Your task to perform on an android device: Search for a new desk on IKEA Image 0: 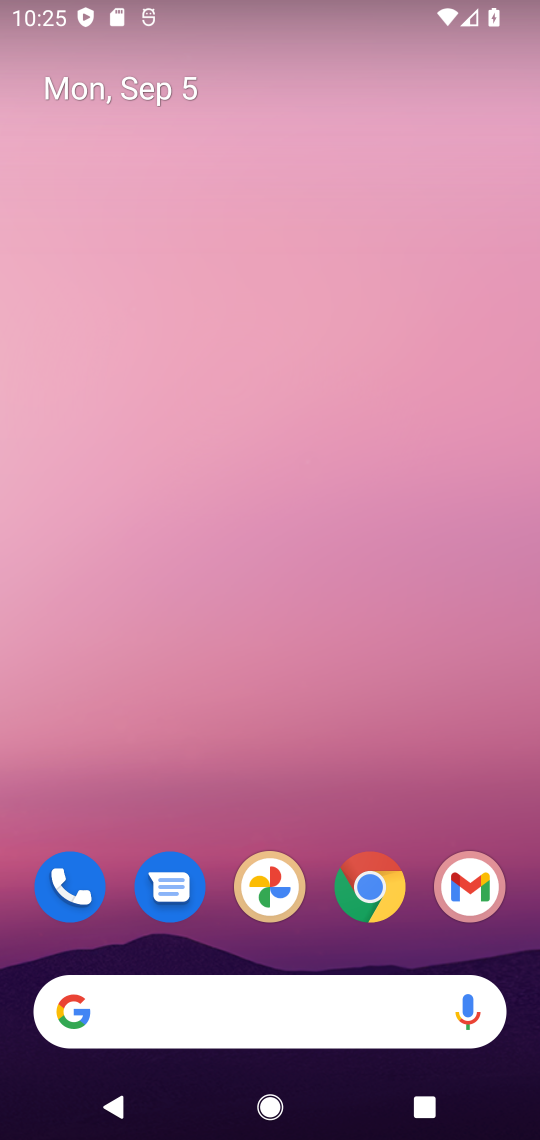
Step 0: click (387, 902)
Your task to perform on an android device: Search for a new desk on IKEA Image 1: 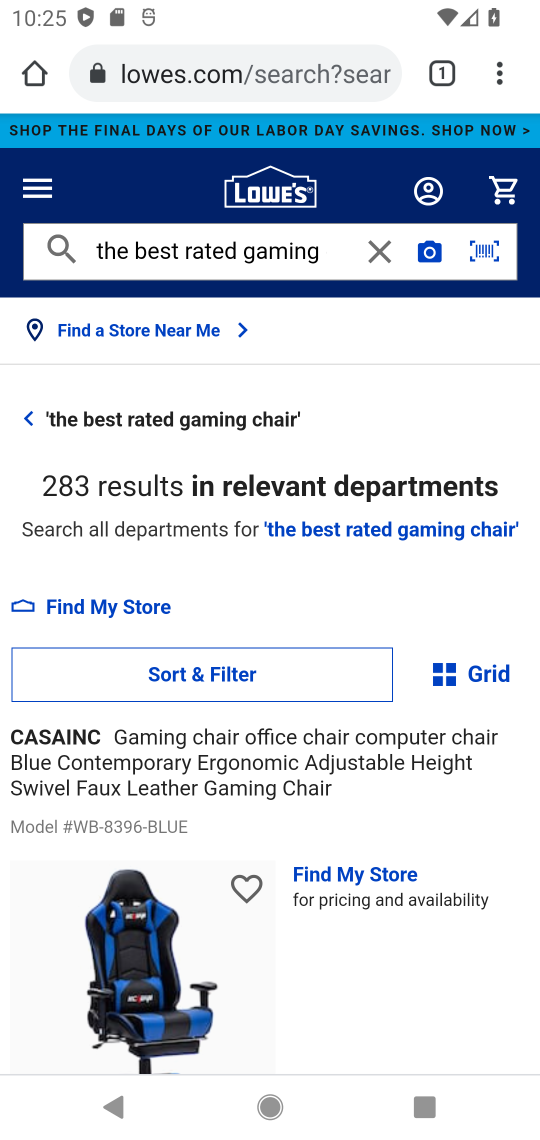
Step 1: click (281, 72)
Your task to perform on an android device: Search for a new desk on IKEA Image 2: 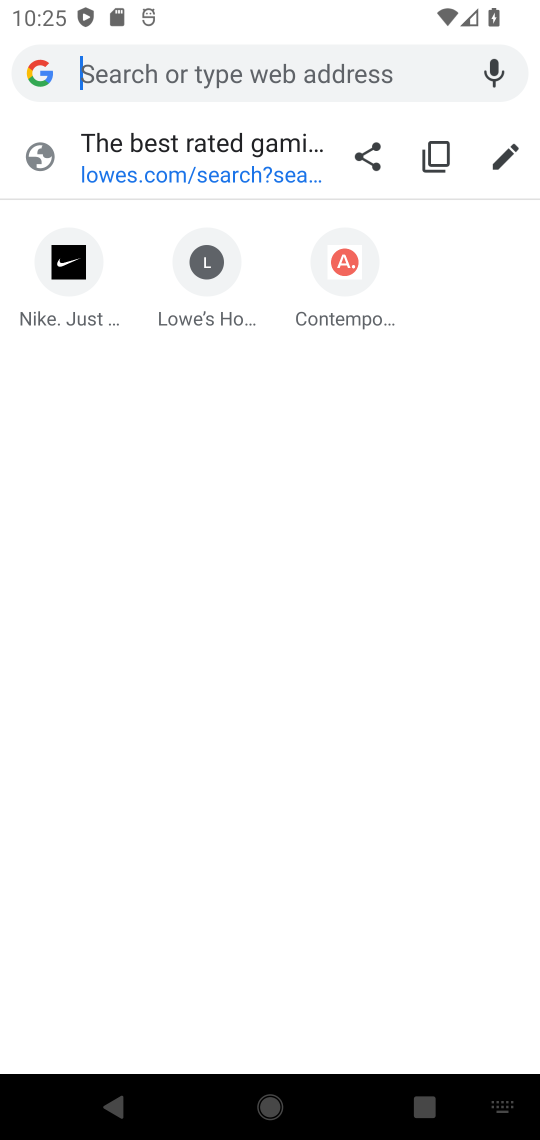
Step 2: type "Ikea"
Your task to perform on an android device: Search for a new desk on IKEA Image 3: 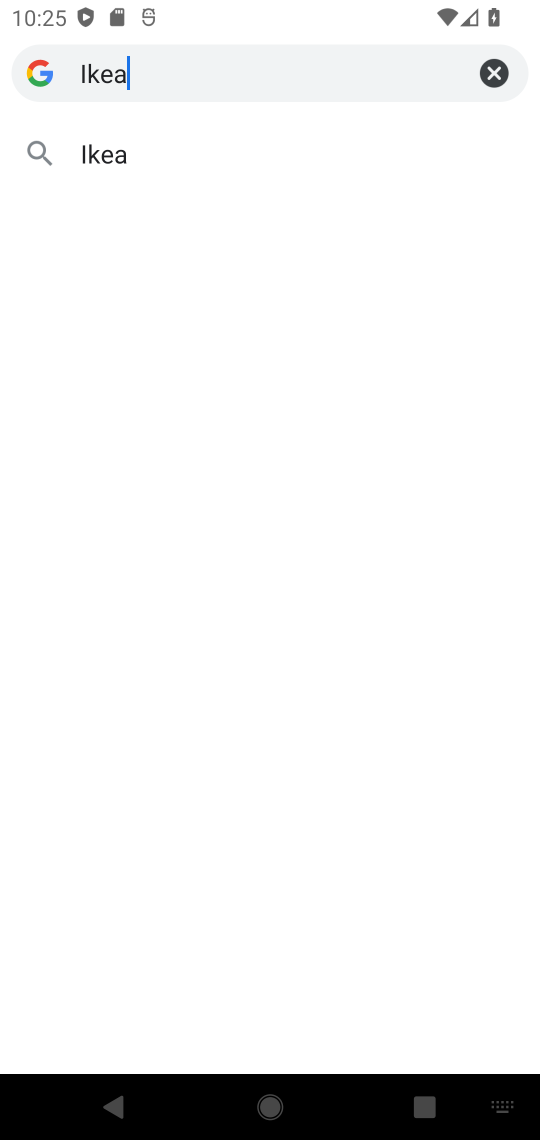
Step 3: click (121, 159)
Your task to perform on an android device: Search for a new desk on IKEA Image 4: 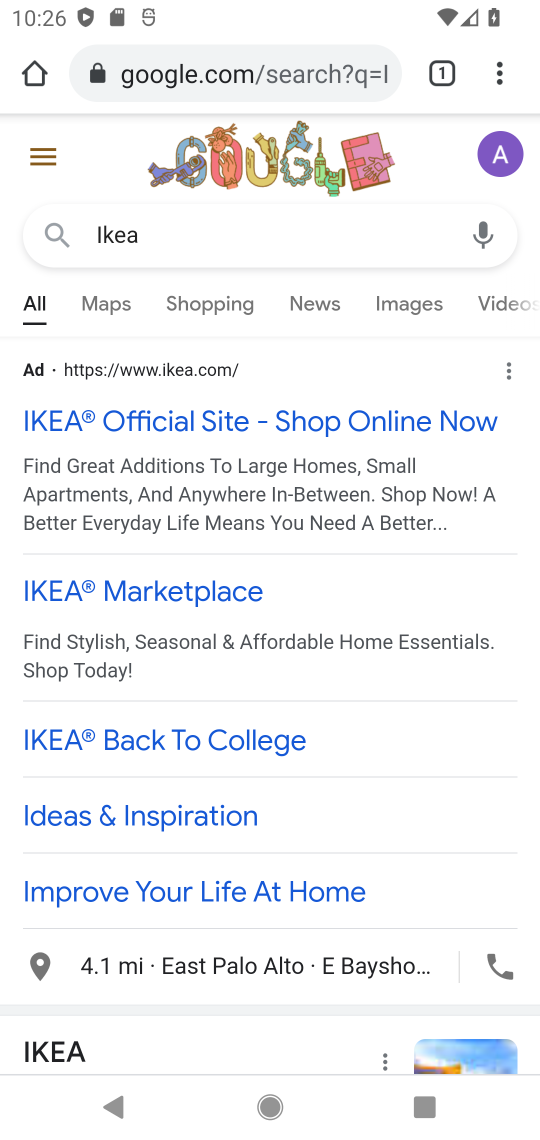
Step 4: click (266, 417)
Your task to perform on an android device: Search for a new desk on IKEA Image 5: 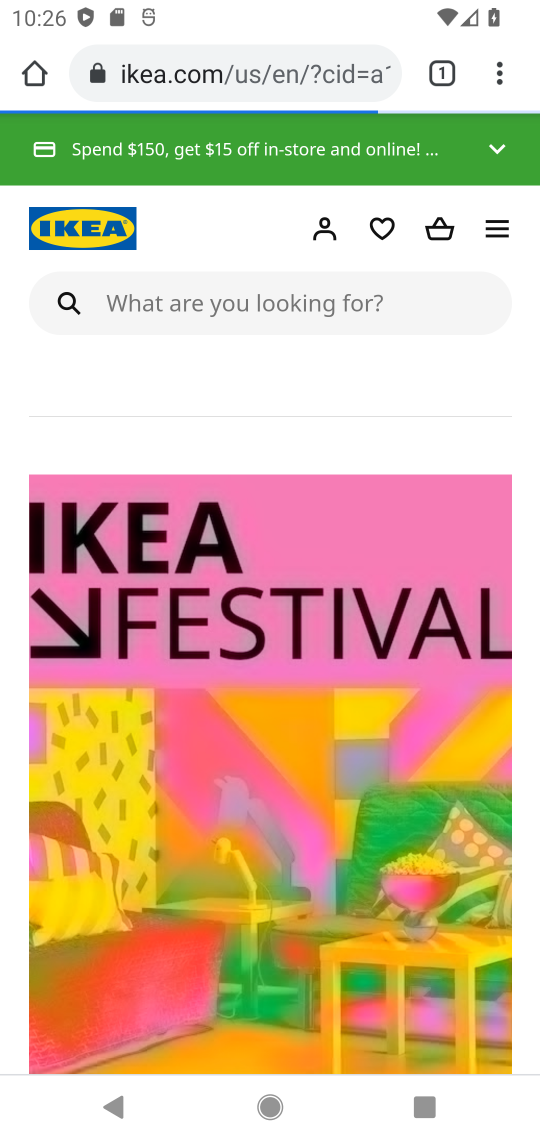
Step 5: click (275, 302)
Your task to perform on an android device: Search for a new desk on IKEA Image 6: 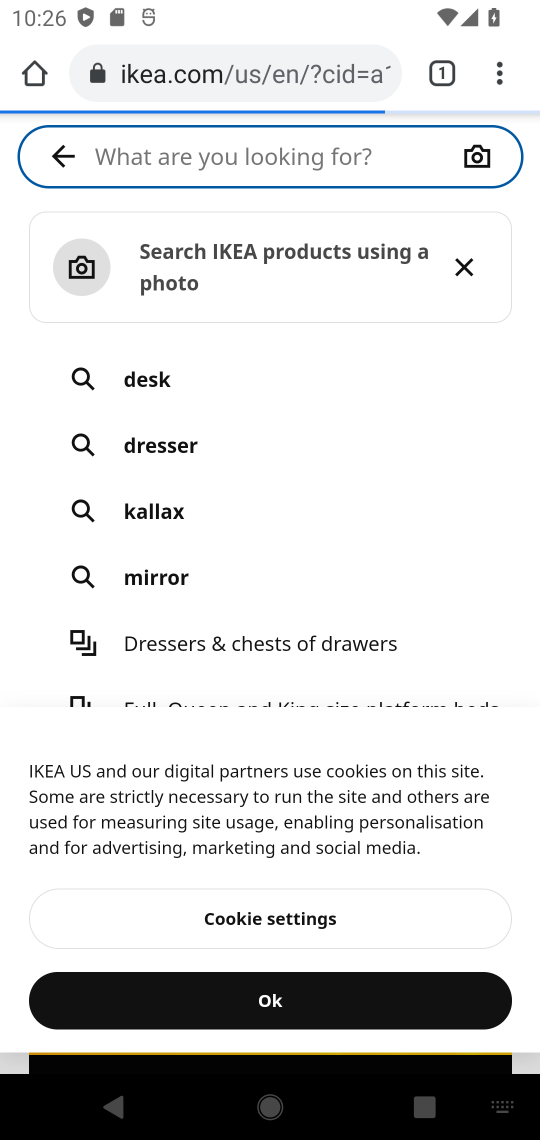
Step 6: type "new desk"
Your task to perform on an android device: Search for a new desk on IKEA Image 7: 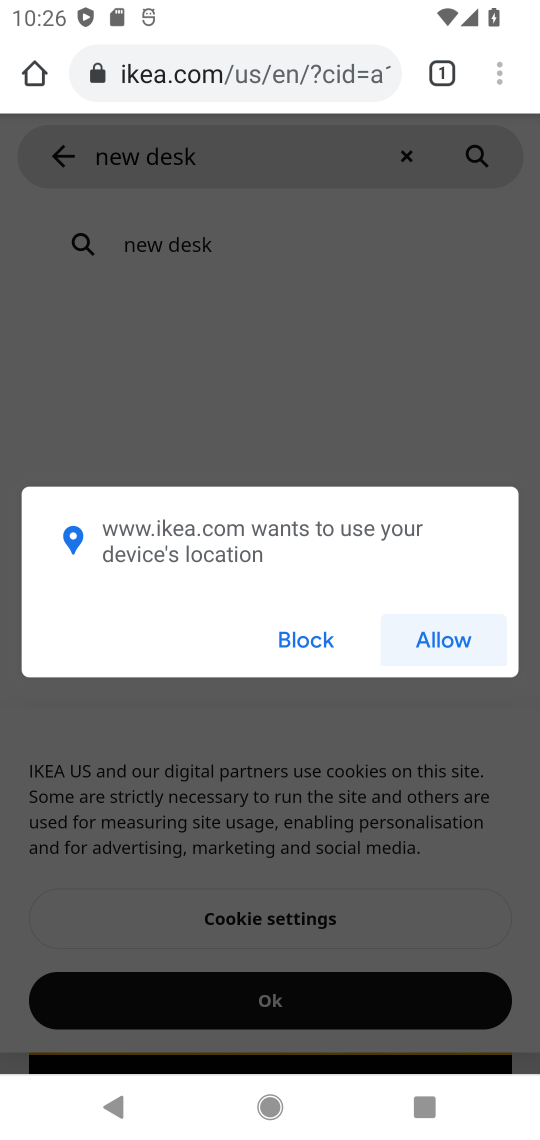
Step 7: click (463, 639)
Your task to perform on an android device: Search for a new desk on IKEA Image 8: 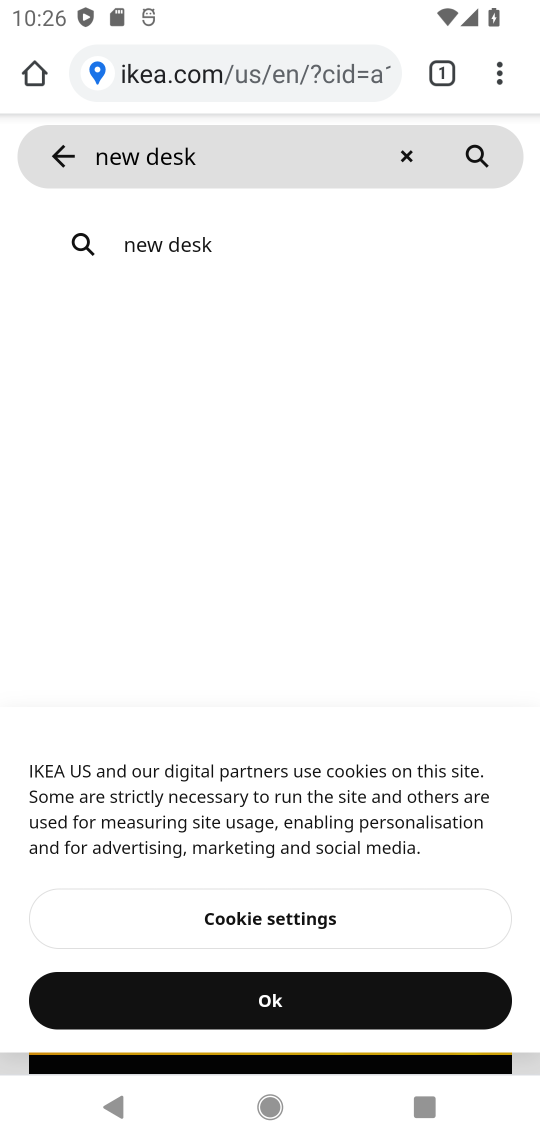
Step 8: click (178, 244)
Your task to perform on an android device: Search for a new desk on IKEA Image 9: 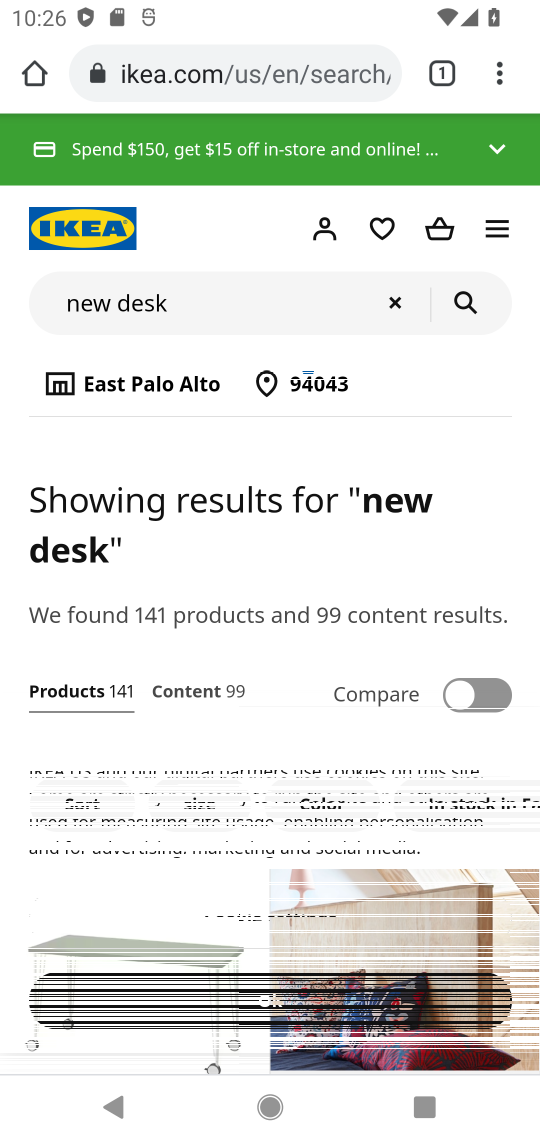
Step 9: task complete